Your task to perform on an android device: Check the latest 3D printers on Target. Image 0: 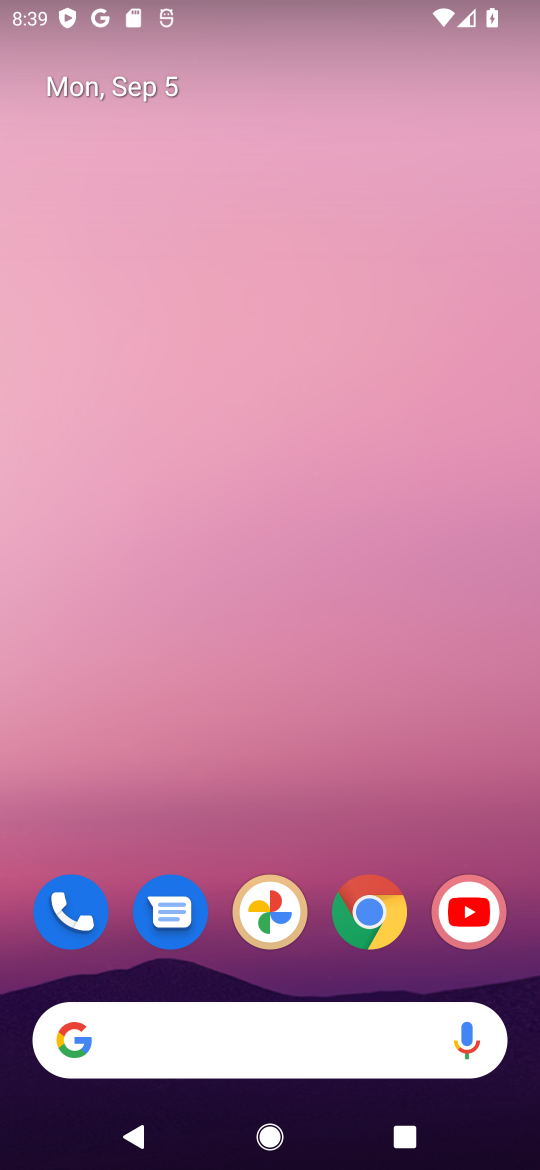
Step 0: click (352, 926)
Your task to perform on an android device: Check the latest 3D printers on Target. Image 1: 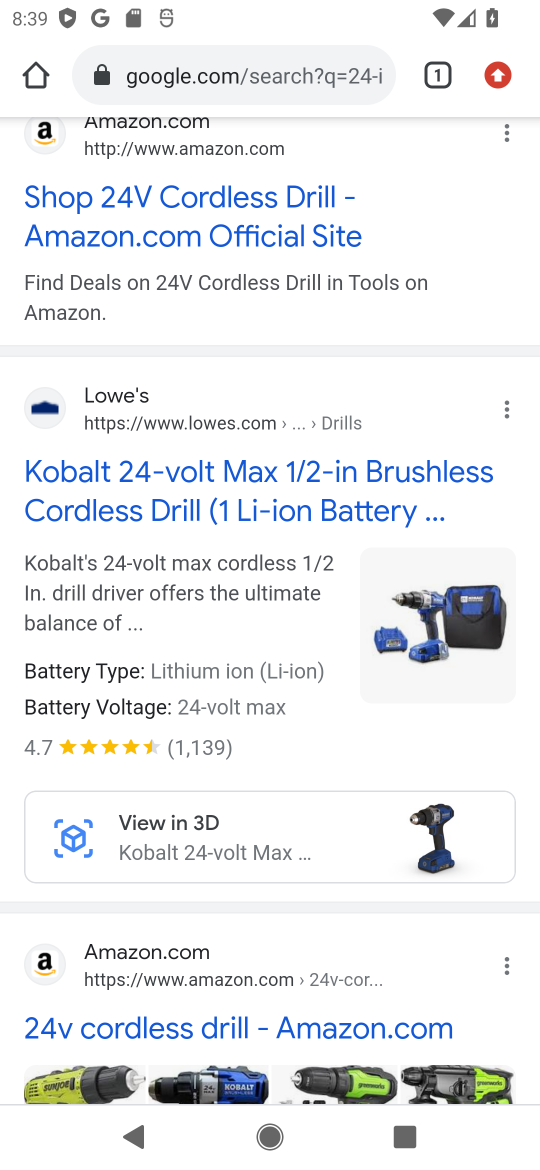
Step 1: click (262, 75)
Your task to perform on an android device: Check the latest 3D printers on Target. Image 2: 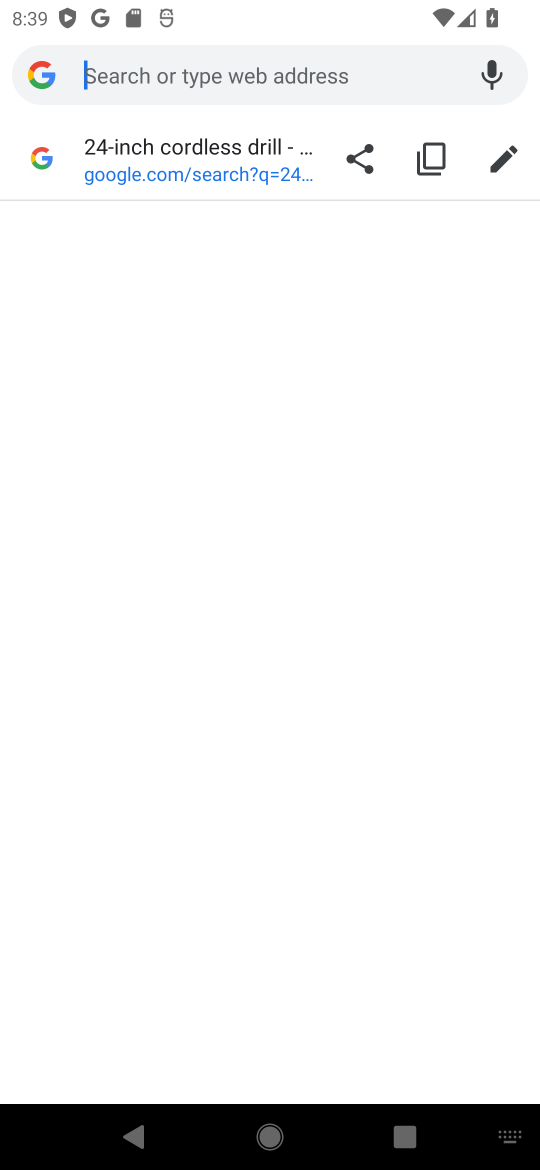
Step 2: type "target"
Your task to perform on an android device: Check the latest 3D printers on Target. Image 3: 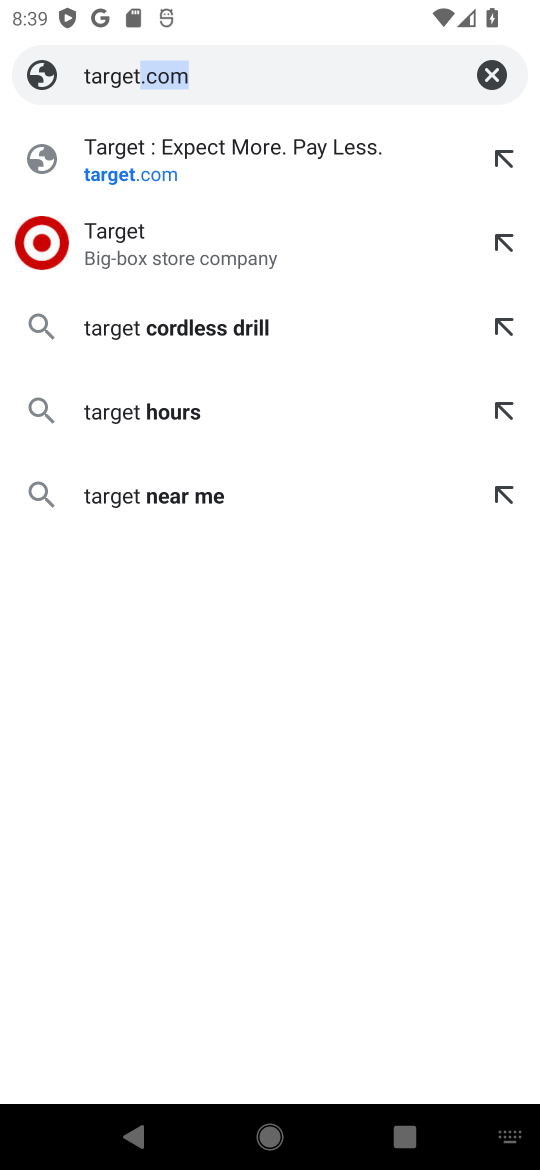
Step 3: press enter
Your task to perform on an android device: Check the latest 3D printers on Target. Image 4: 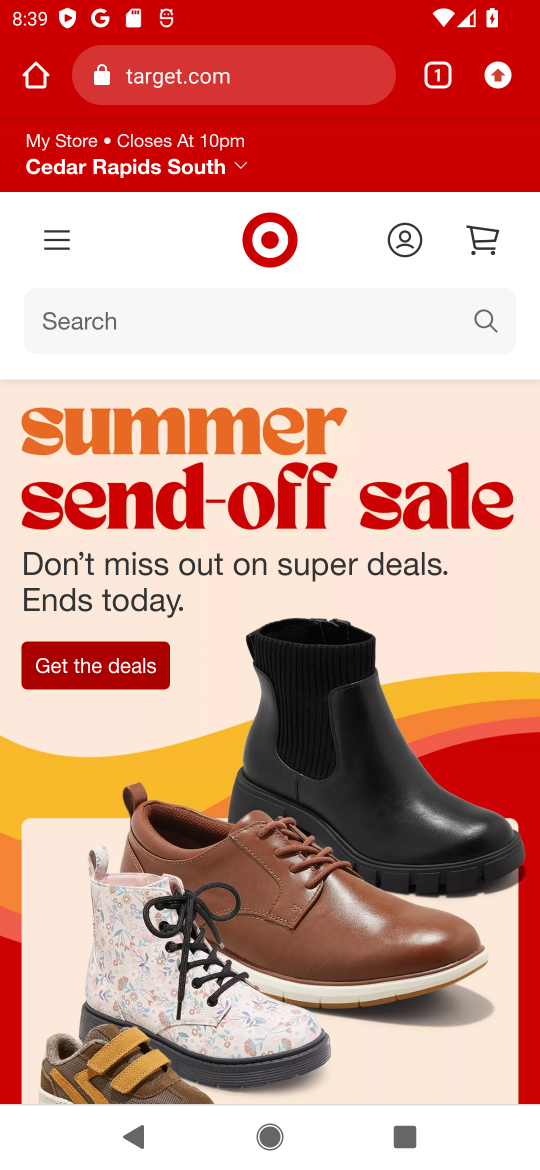
Step 4: click (264, 316)
Your task to perform on an android device: Check the latest 3D printers on Target. Image 5: 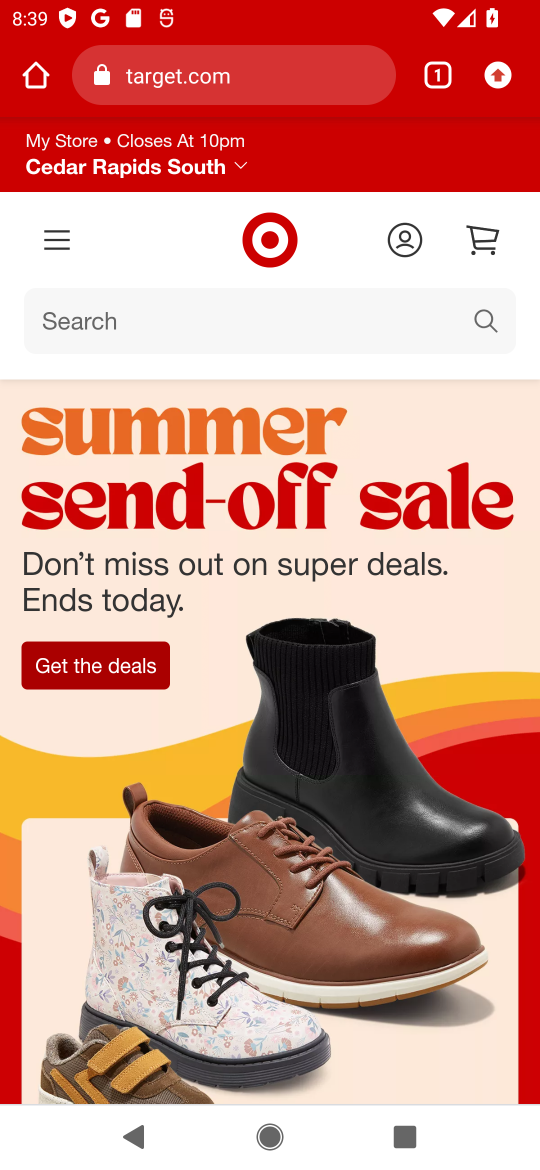
Step 5: click (246, 322)
Your task to perform on an android device: Check the latest 3D printers on Target. Image 6: 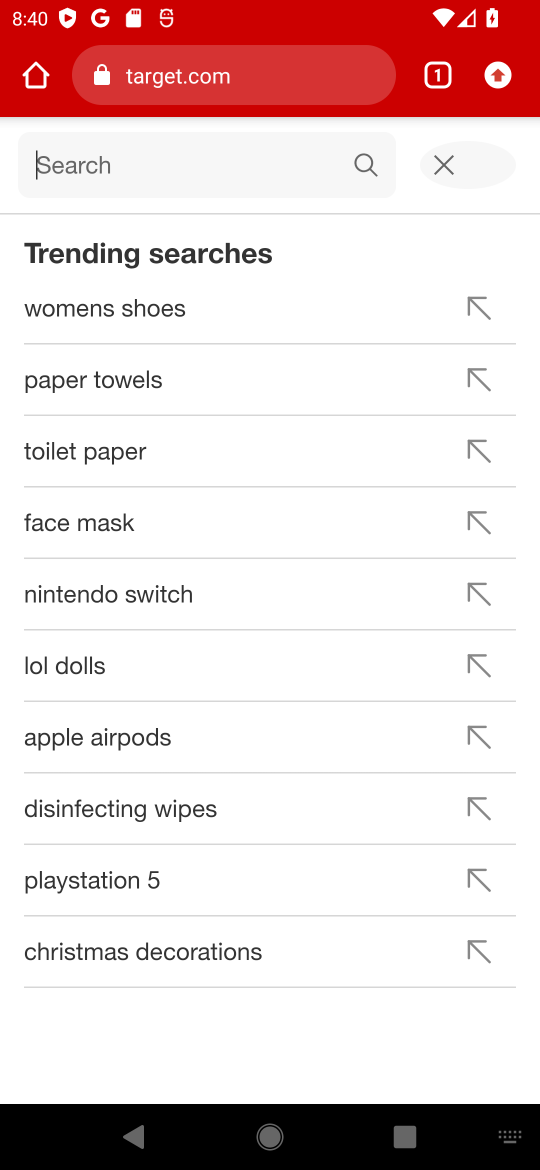
Step 6: type "3D printers"
Your task to perform on an android device: Check the latest 3D printers on Target. Image 7: 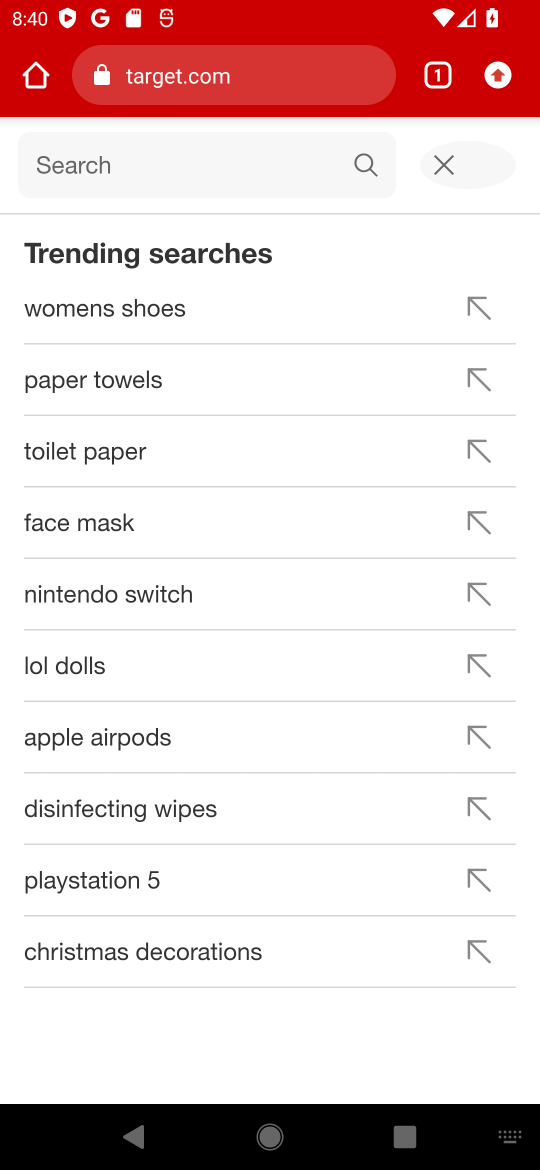
Step 7: press enter
Your task to perform on an android device: Check the latest 3D printers on Target. Image 8: 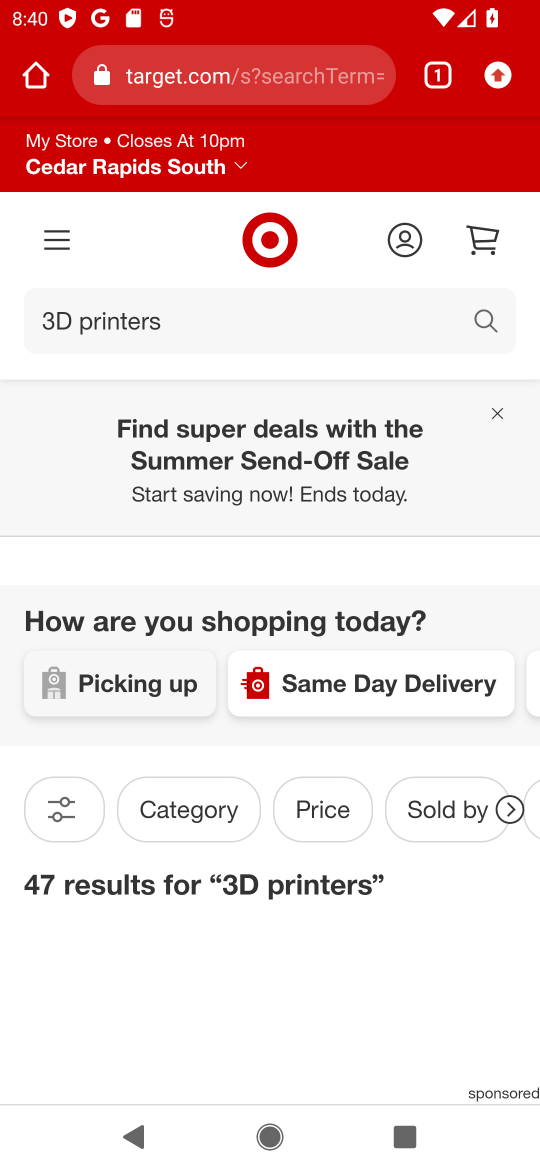
Step 8: click (59, 815)
Your task to perform on an android device: Check the latest 3D printers on Target. Image 9: 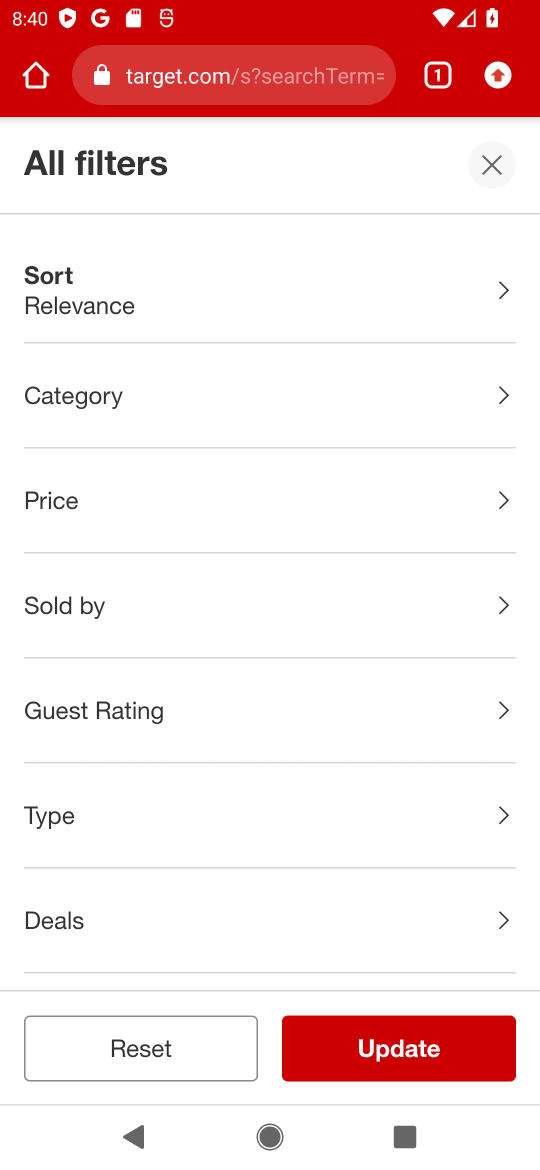
Step 9: click (309, 301)
Your task to perform on an android device: Check the latest 3D printers on Target. Image 10: 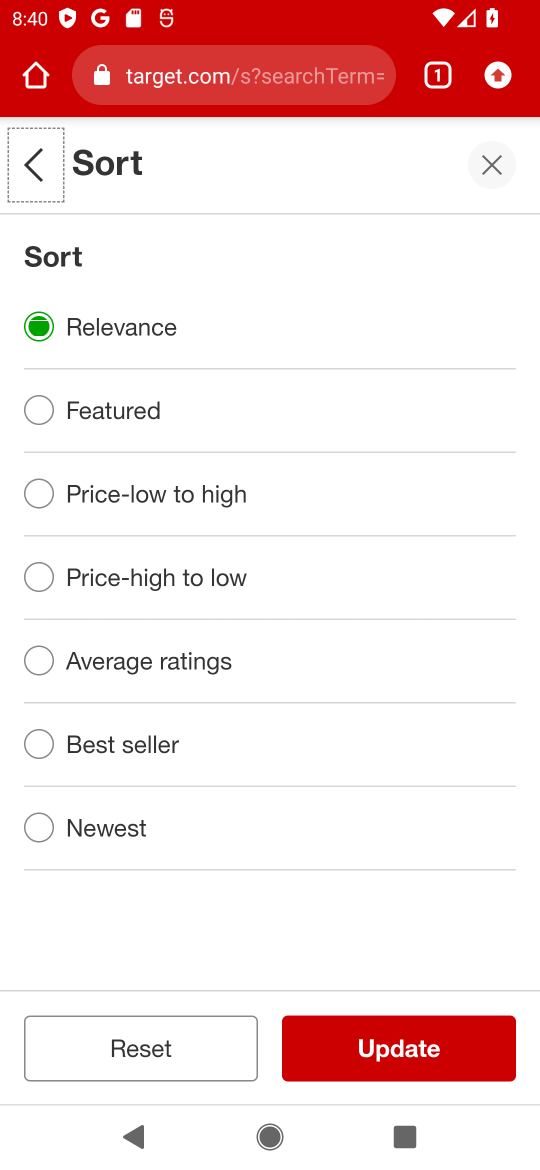
Step 10: click (196, 830)
Your task to perform on an android device: Check the latest 3D printers on Target. Image 11: 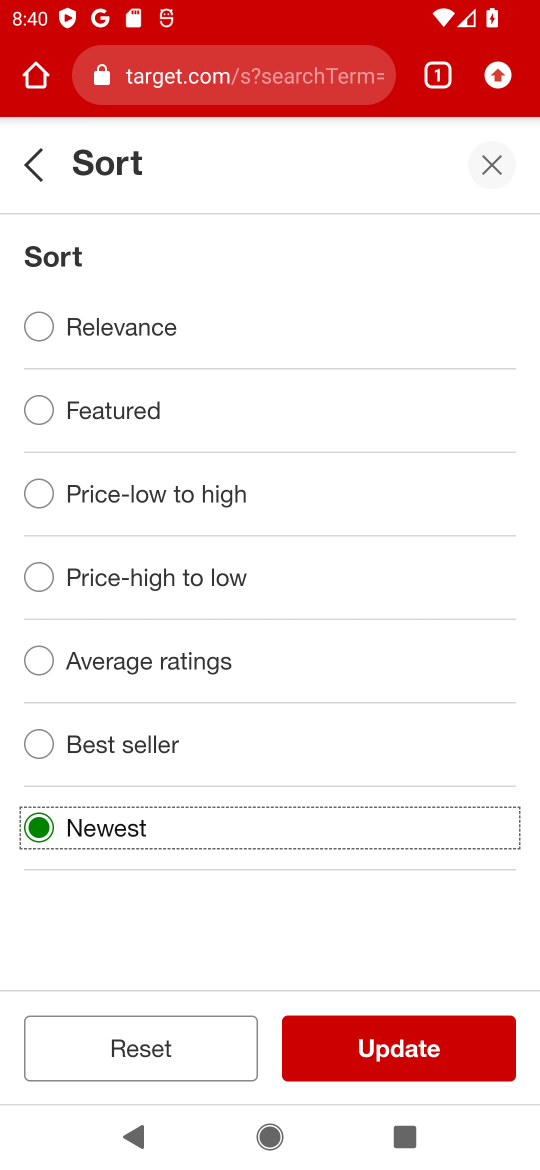
Step 11: click (458, 1044)
Your task to perform on an android device: Check the latest 3D printers on Target. Image 12: 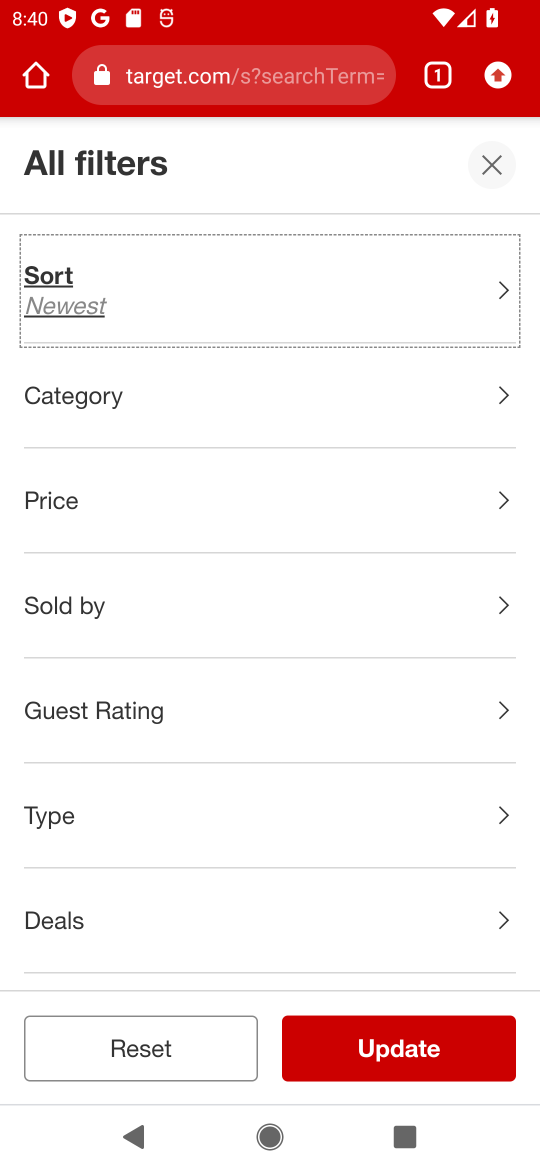
Step 12: click (458, 1044)
Your task to perform on an android device: Check the latest 3D printers on Target. Image 13: 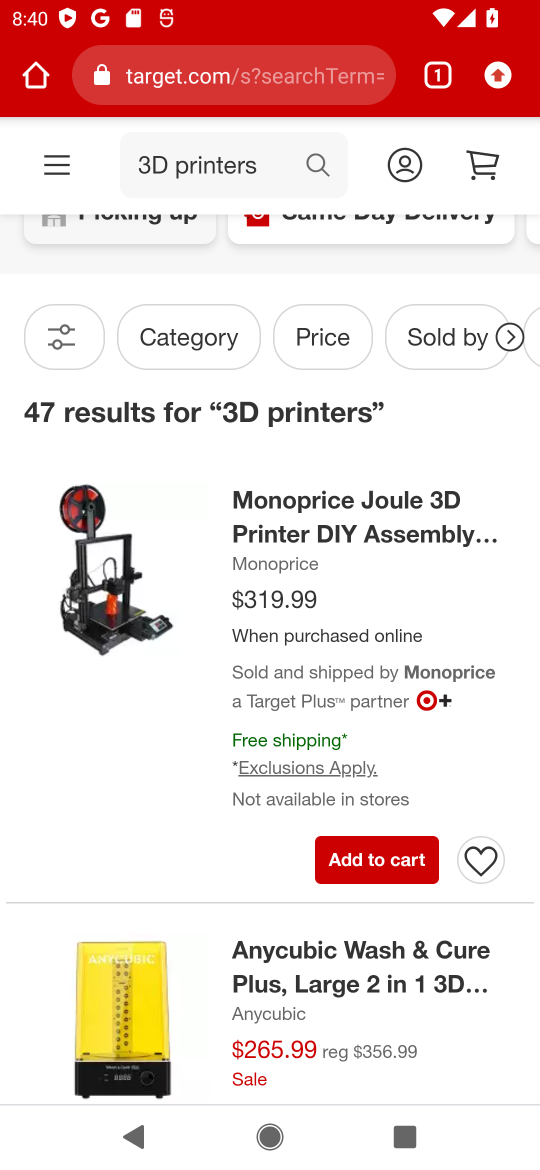
Step 13: drag from (201, 809) to (196, 432)
Your task to perform on an android device: Check the latest 3D printers on Target. Image 14: 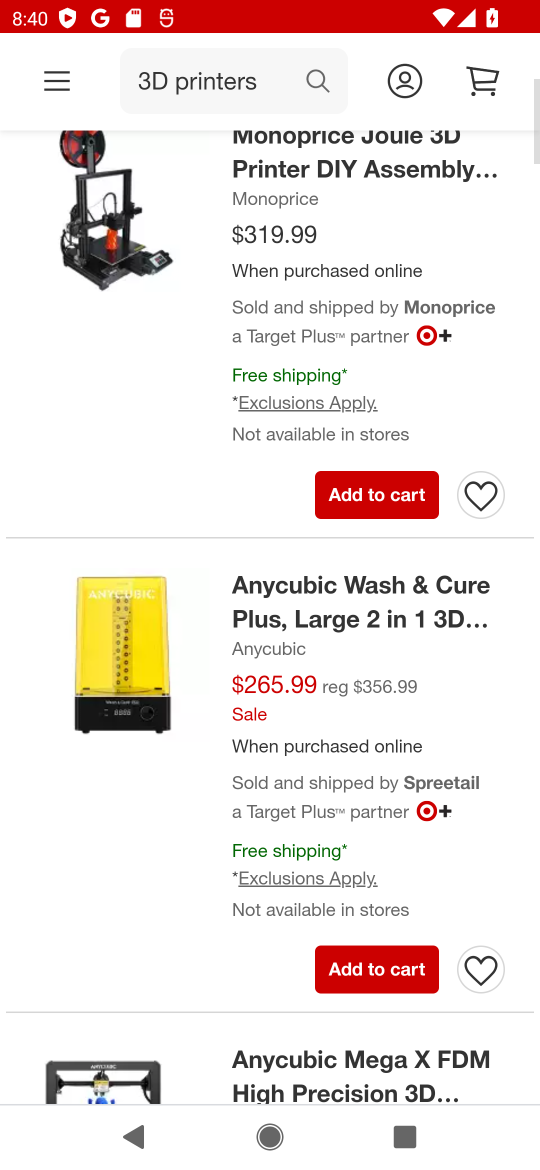
Step 14: drag from (273, 922) to (324, 585)
Your task to perform on an android device: Check the latest 3D printers on Target. Image 15: 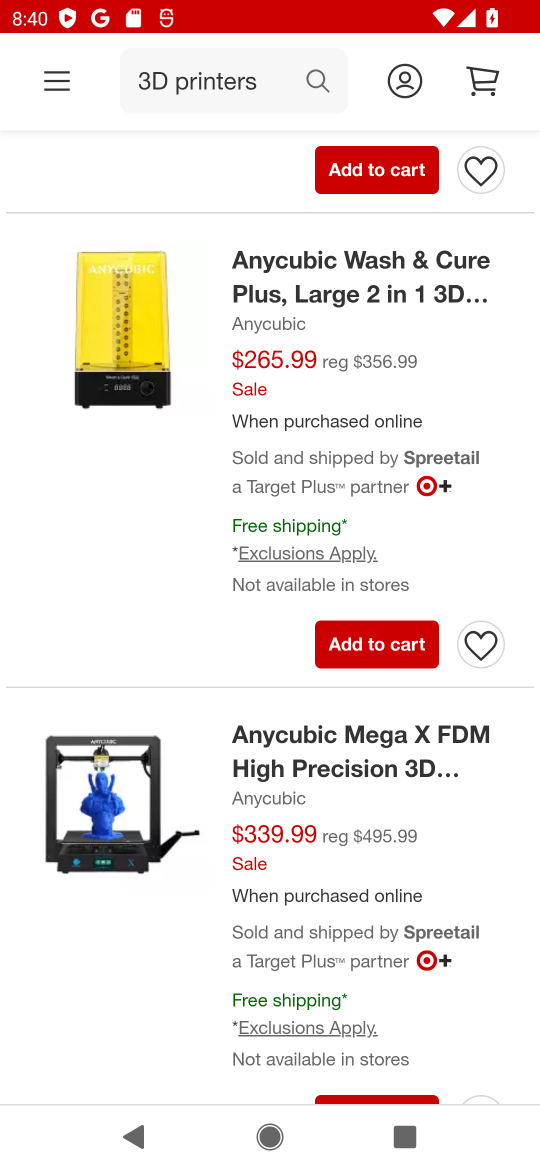
Step 15: drag from (253, 930) to (271, 503)
Your task to perform on an android device: Check the latest 3D printers on Target. Image 16: 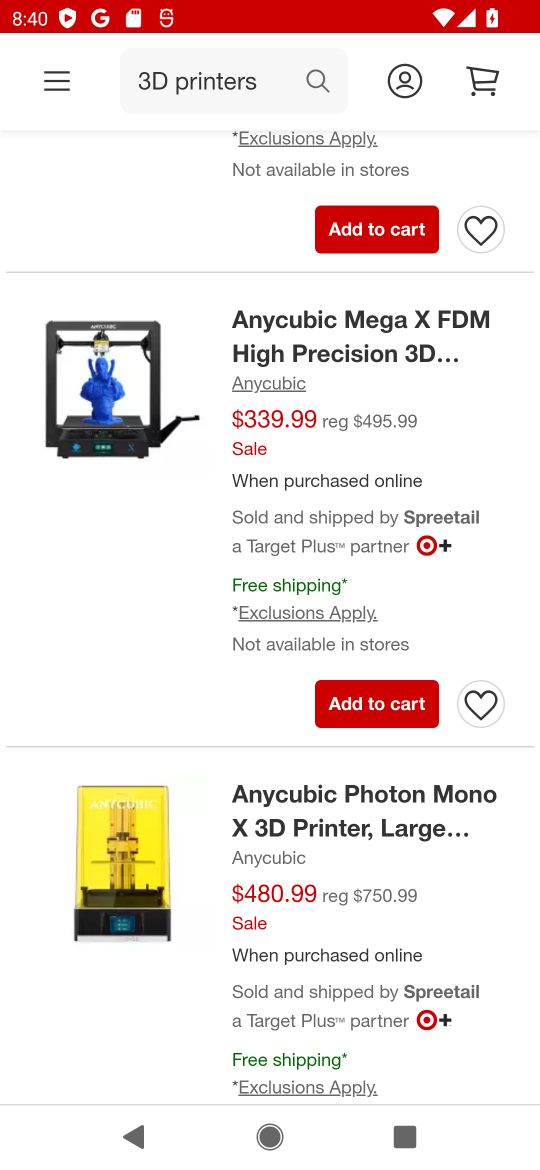
Step 16: drag from (308, 955) to (304, 1055)
Your task to perform on an android device: Check the latest 3D printers on Target. Image 17: 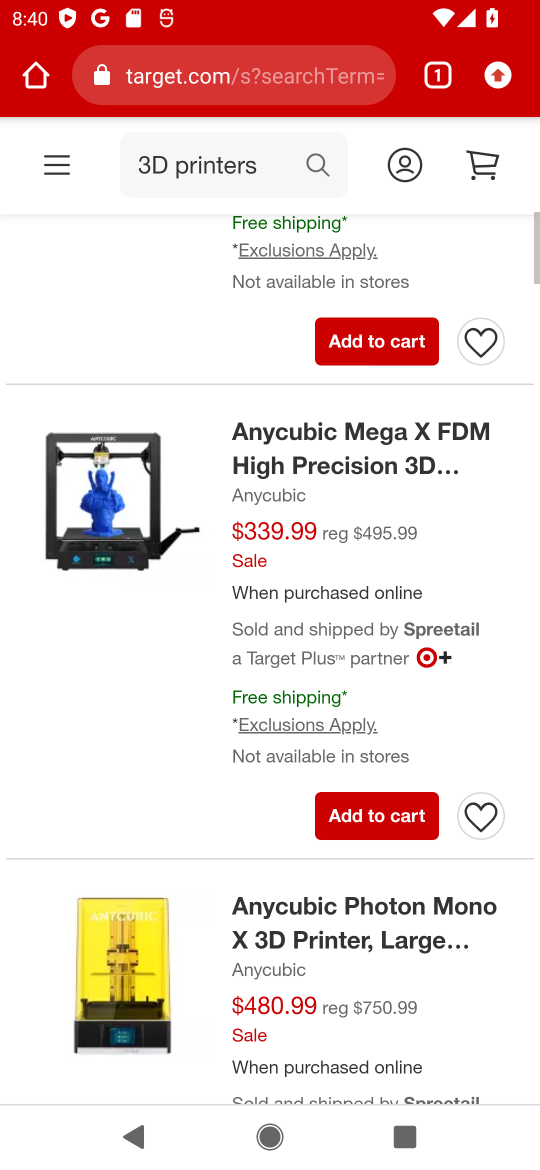
Step 17: drag from (267, 388) to (302, 837)
Your task to perform on an android device: Check the latest 3D printers on Target. Image 18: 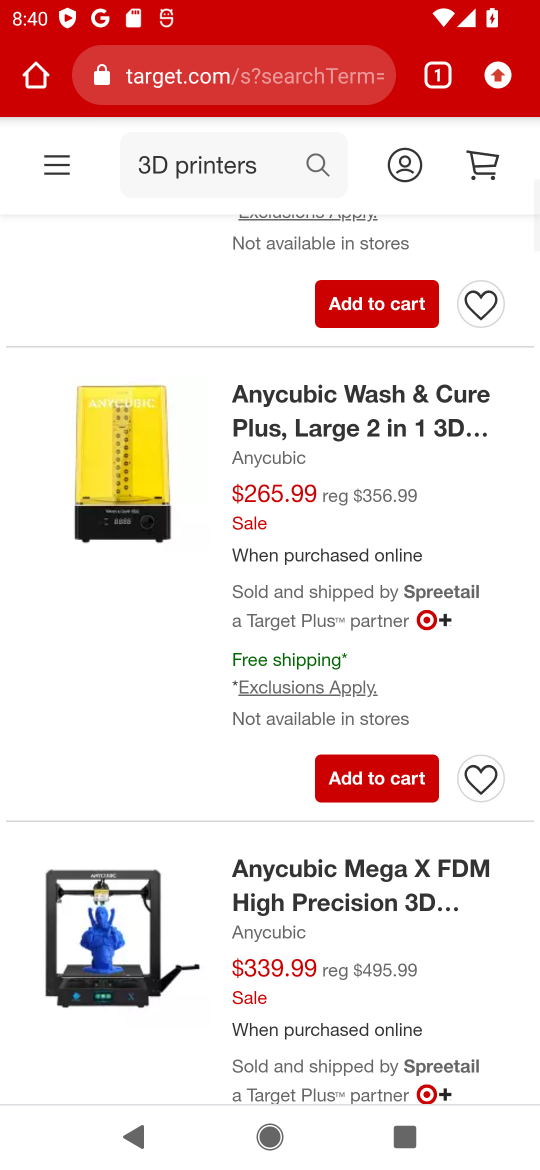
Step 18: drag from (295, 459) to (341, 1035)
Your task to perform on an android device: Check the latest 3D printers on Target. Image 19: 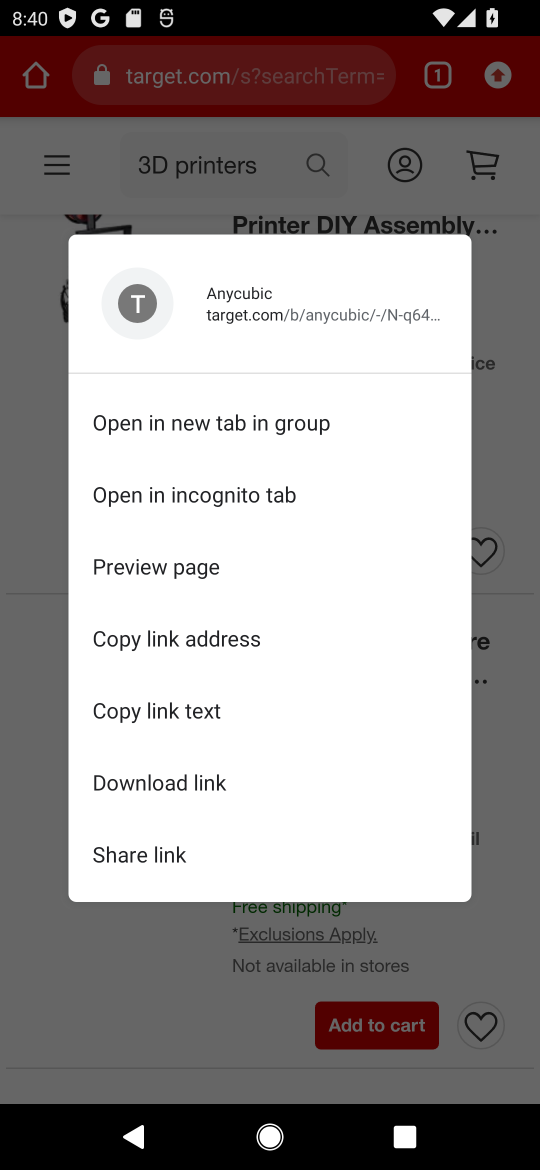
Step 19: click (484, 739)
Your task to perform on an android device: Check the latest 3D printers on Target. Image 20: 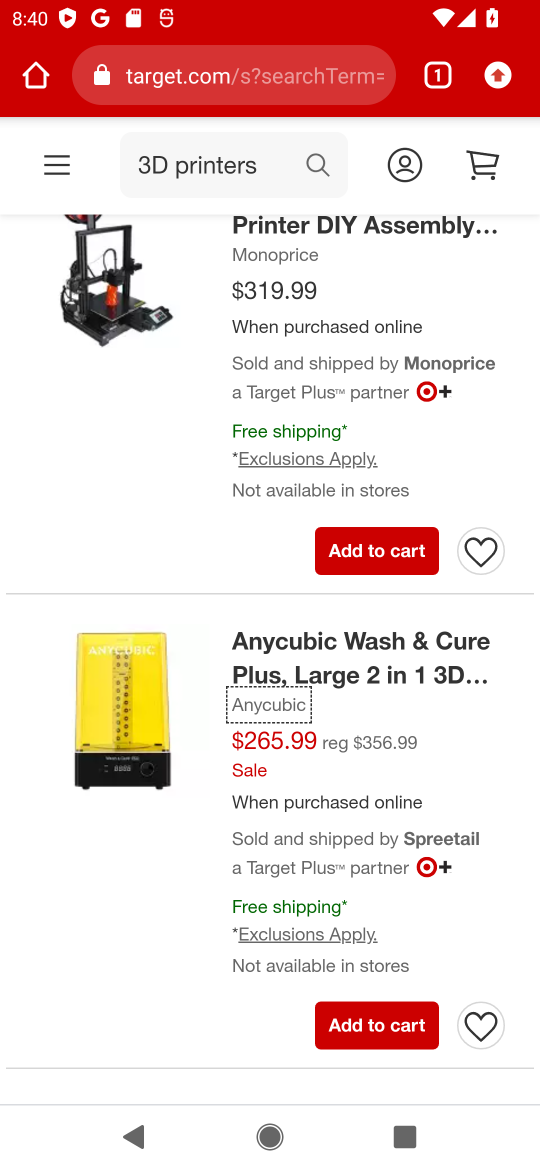
Step 20: drag from (313, 638) to (323, 960)
Your task to perform on an android device: Check the latest 3D printers on Target. Image 21: 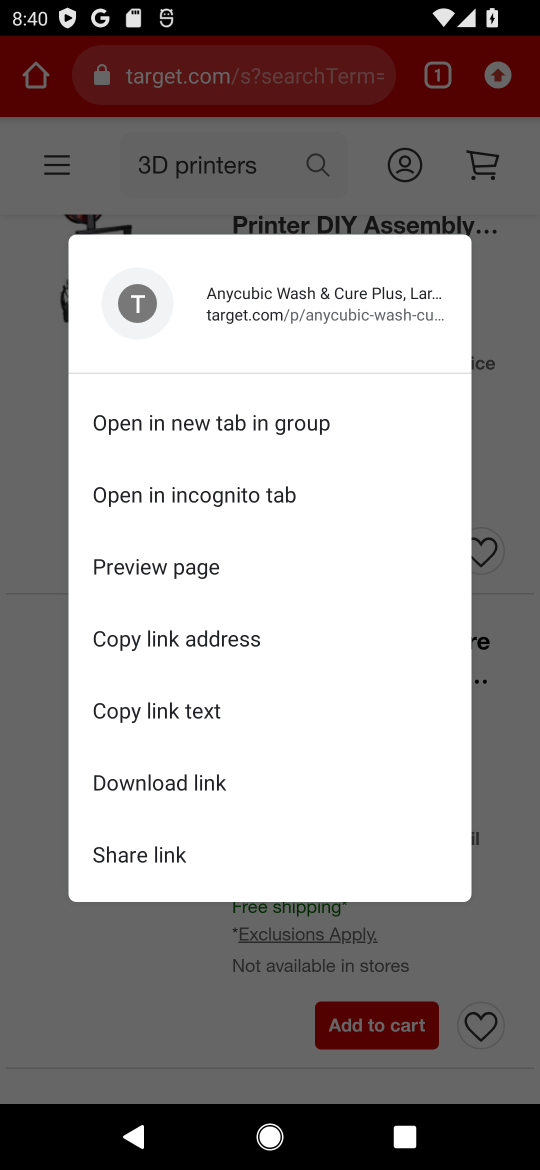
Step 21: click (506, 577)
Your task to perform on an android device: Check the latest 3D printers on Target. Image 22: 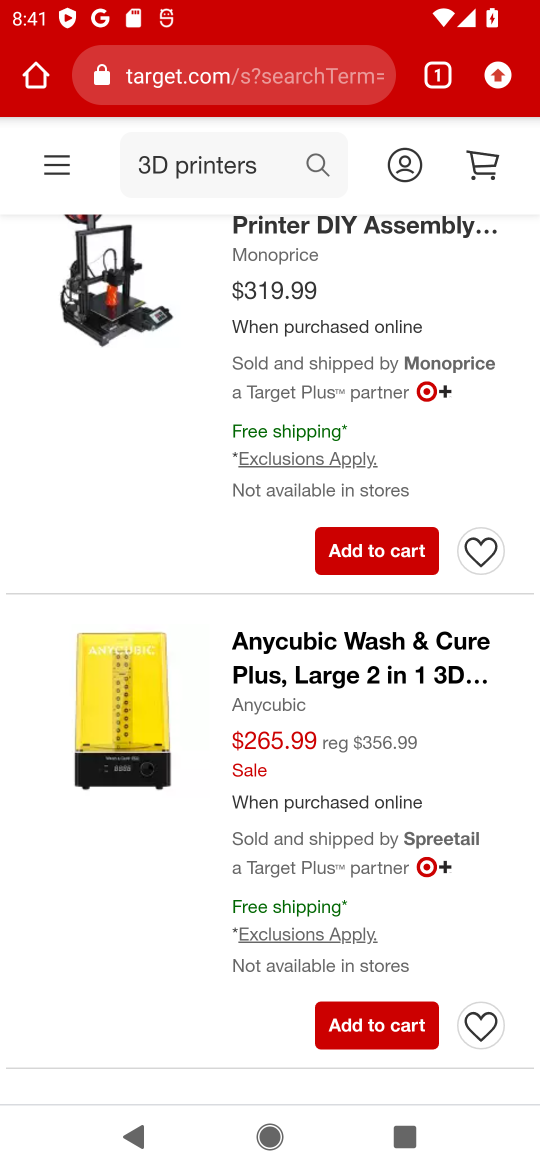
Step 22: task complete